Your task to perform on an android device: open chrome and create a bookmark for the current page Image 0: 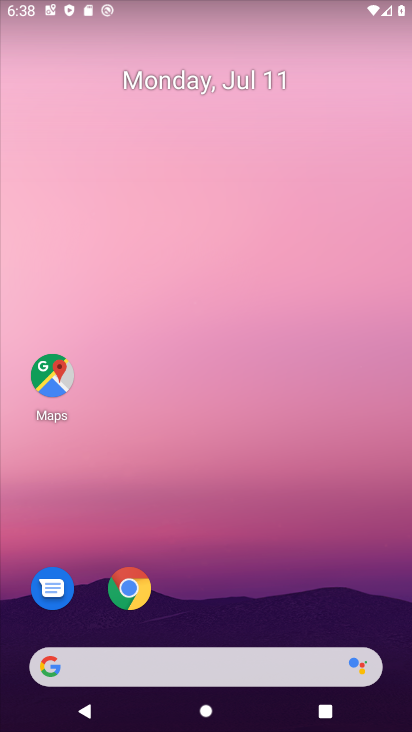
Step 0: drag from (388, 655) to (313, 35)
Your task to perform on an android device: open chrome and create a bookmark for the current page Image 1: 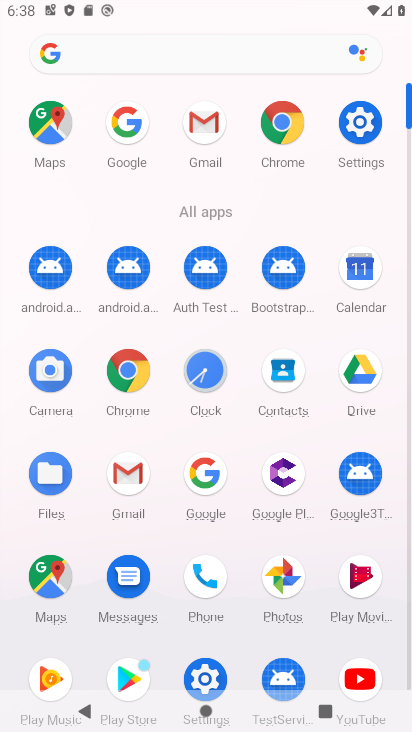
Step 1: click (268, 116)
Your task to perform on an android device: open chrome and create a bookmark for the current page Image 2: 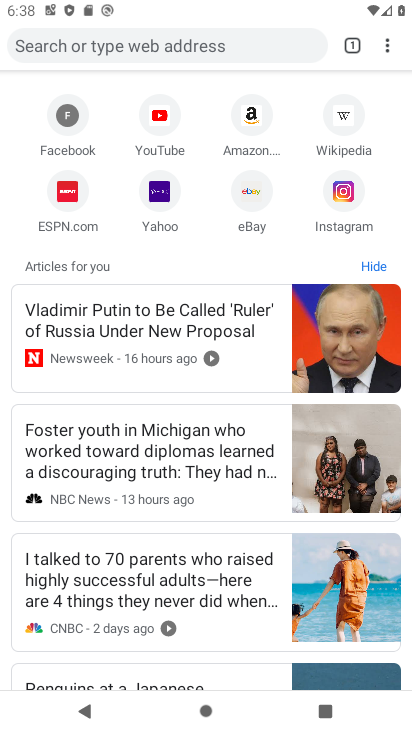
Step 2: click (384, 42)
Your task to perform on an android device: open chrome and create a bookmark for the current page Image 3: 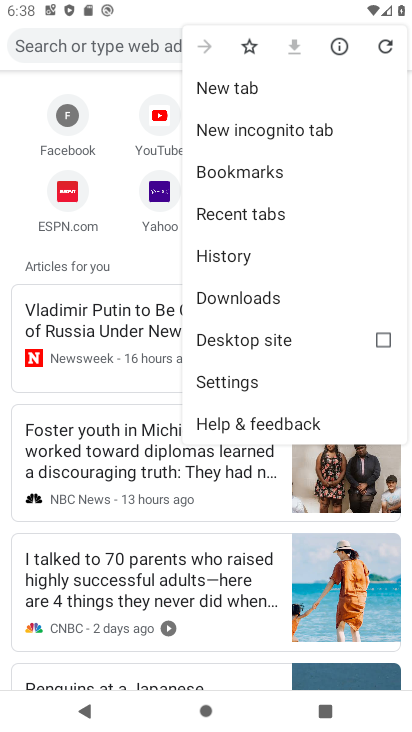
Step 3: click (244, 45)
Your task to perform on an android device: open chrome and create a bookmark for the current page Image 4: 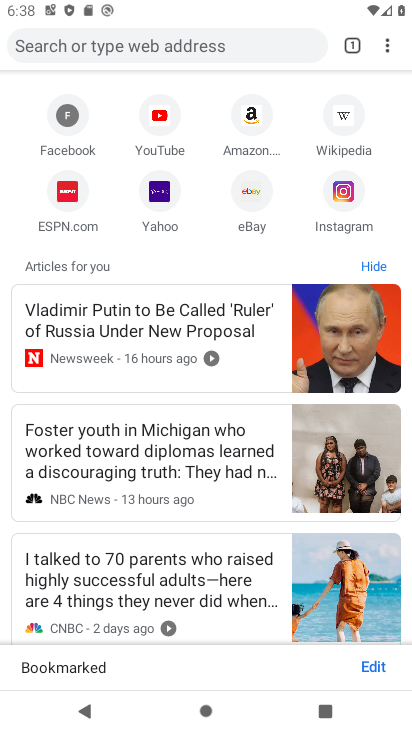
Step 4: task complete